Your task to perform on an android device: turn off priority inbox in the gmail app Image 0: 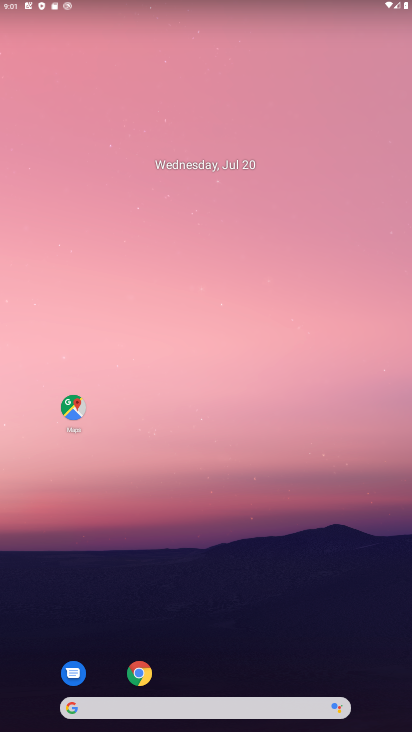
Step 0: drag from (226, 634) to (235, 109)
Your task to perform on an android device: turn off priority inbox in the gmail app Image 1: 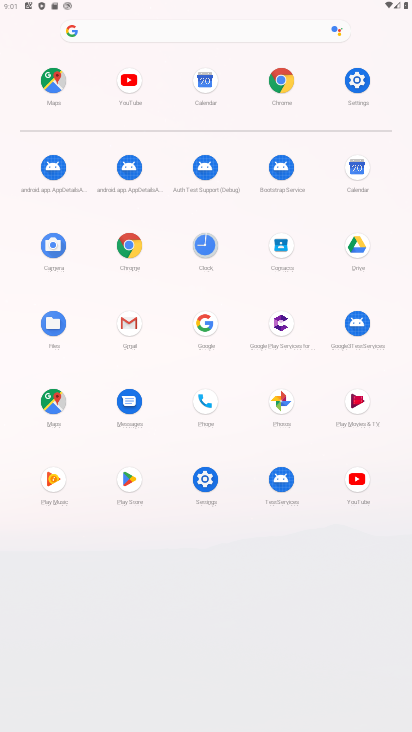
Step 1: click (120, 319)
Your task to perform on an android device: turn off priority inbox in the gmail app Image 2: 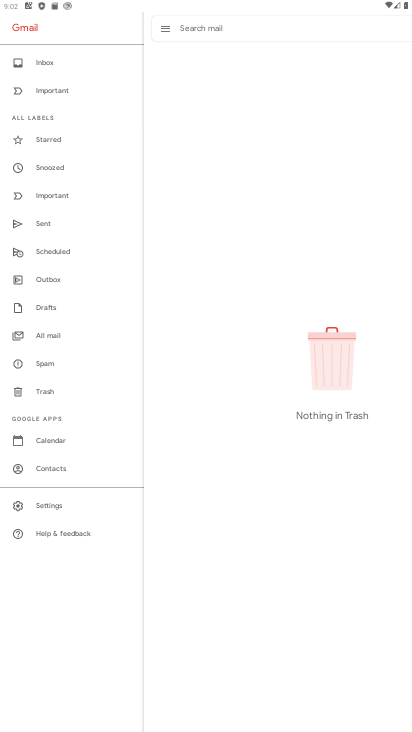
Step 2: click (50, 503)
Your task to perform on an android device: turn off priority inbox in the gmail app Image 3: 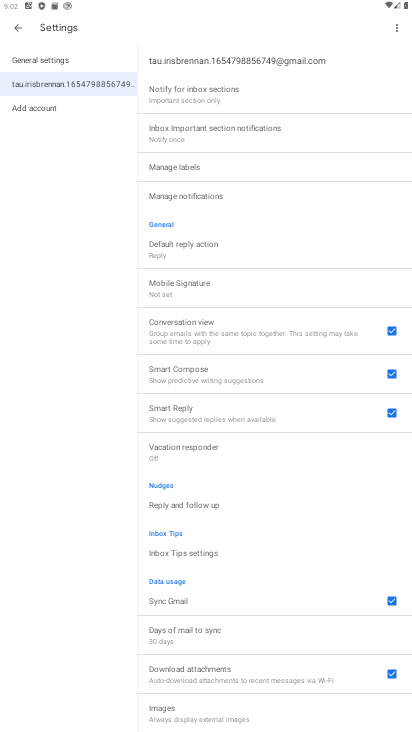
Step 3: drag from (215, 227) to (206, 419)
Your task to perform on an android device: turn off priority inbox in the gmail app Image 4: 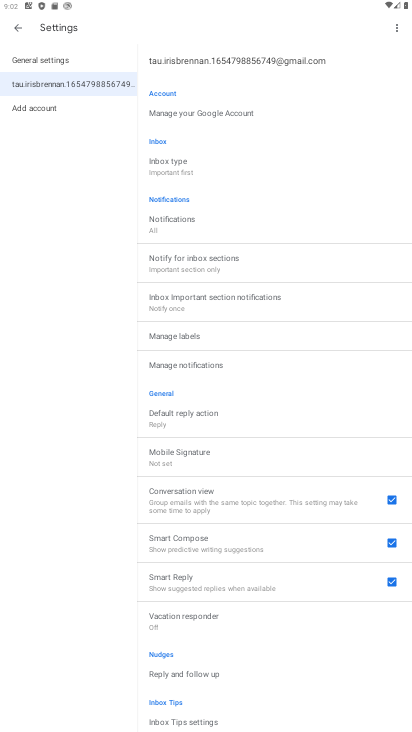
Step 4: click (218, 164)
Your task to perform on an android device: turn off priority inbox in the gmail app Image 5: 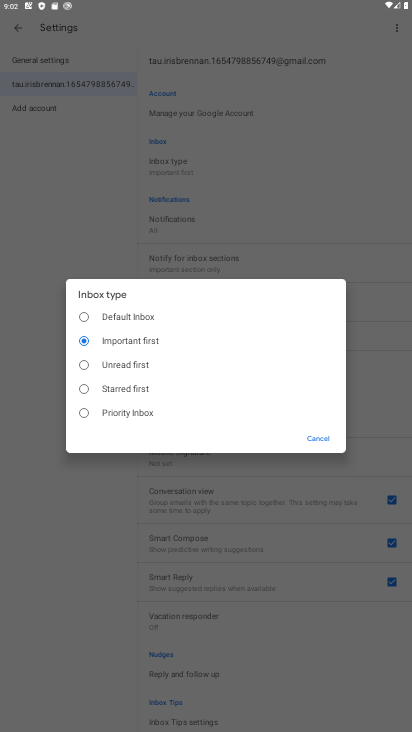
Step 5: click (106, 318)
Your task to perform on an android device: turn off priority inbox in the gmail app Image 6: 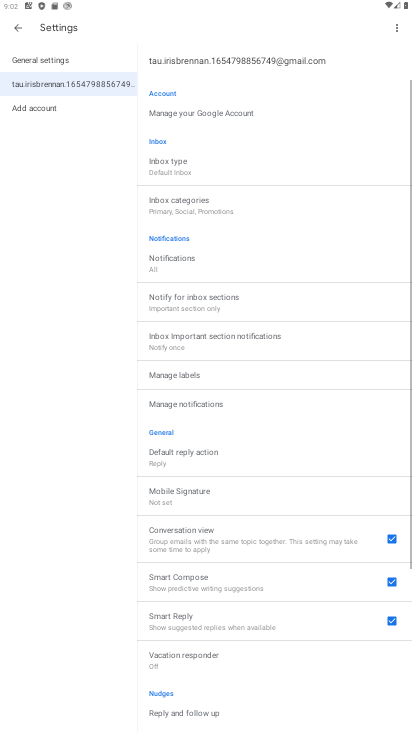
Step 6: task complete